Your task to perform on an android device: Clear the shopping cart on walmart.com. Search for usb-c to usb-a on walmart.com, select the first entry, and add it to the cart. Image 0: 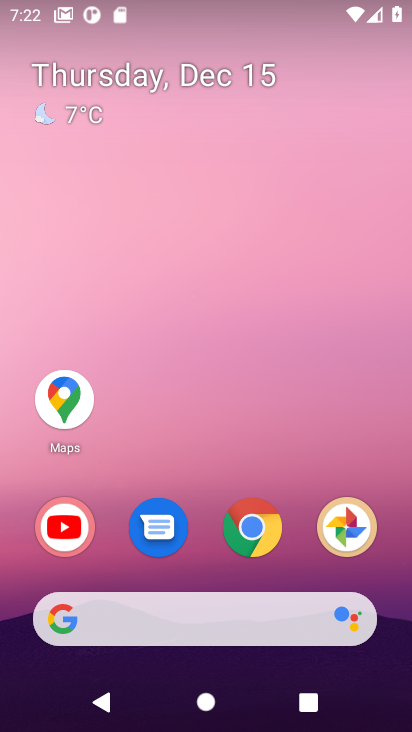
Step 0: click (263, 536)
Your task to perform on an android device: Clear the shopping cart on walmart.com. Search for usb-c to usb-a on walmart.com, select the first entry, and add it to the cart. Image 1: 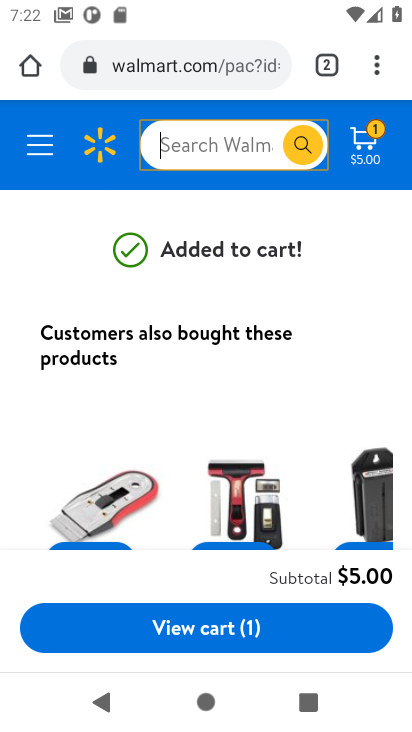
Step 1: click (259, 137)
Your task to perform on an android device: Clear the shopping cart on walmart.com. Search for usb-c to usb-a on walmart.com, select the first entry, and add it to the cart. Image 2: 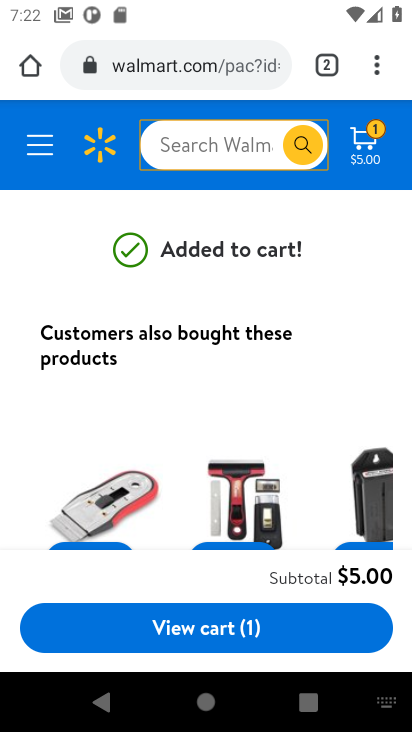
Step 2: type "usb-c to usb-a"
Your task to perform on an android device: Clear the shopping cart on walmart.com. Search for usb-c to usb-a on walmart.com, select the first entry, and add it to the cart. Image 3: 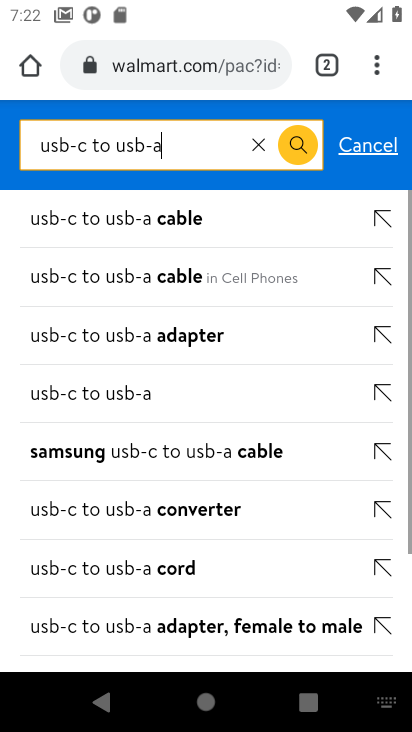
Step 3: click (126, 222)
Your task to perform on an android device: Clear the shopping cart on walmart.com. Search for usb-c to usb-a on walmart.com, select the first entry, and add it to the cart. Image 4: 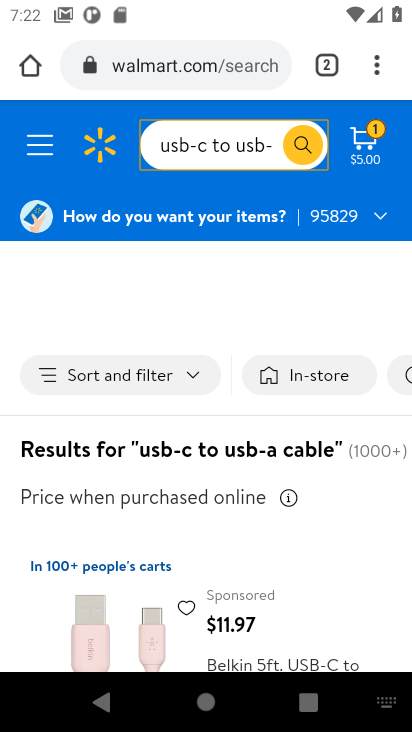
Step 4: click (301, 628)
Your task to perform on an android device: Clear the shopping cart on walmart.com. Search for usb-c to usb-a on walmart.com, select the first entry, and add it to the cart. Image 5: 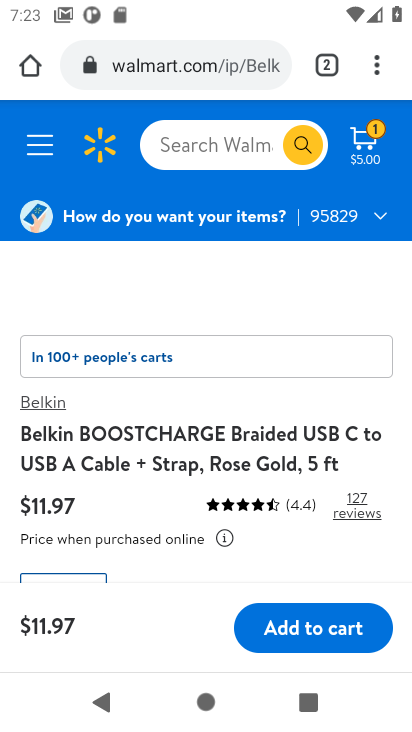
Step 5: click (301, 628)
Your task to perform on an android device: Clear the shopping cart on walmart.com. Search for usb-c to usb-a on walmart.com, select the first entry, and add it to the cart. Image 6: 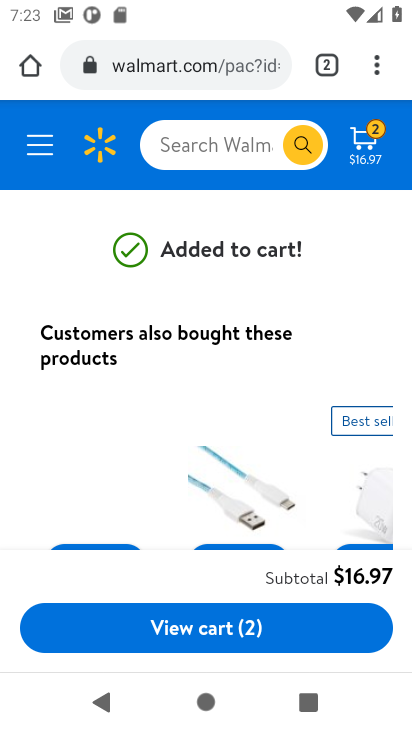
Step 6: task complete